Your task to perform on an android device: Open Google Maps and go to "Timeline" Image 0: 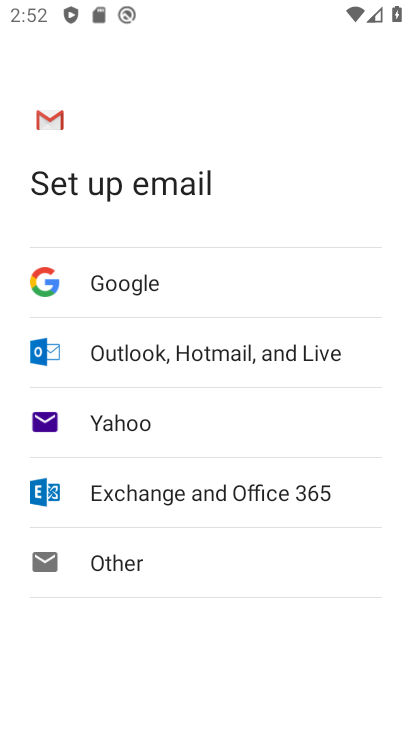
Step 0: press home button
Your task to perform on an android device: Open Google Maps and go to "Timeline" Image 1: 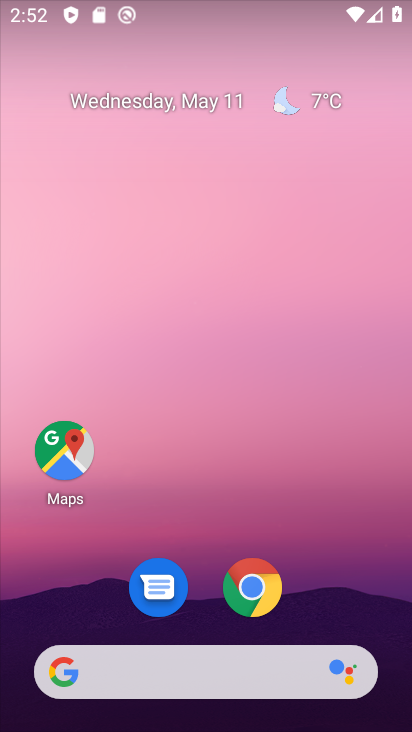
Step 1: click (75, 456)
Your task to perform on an android device: Open Google Maps and go to "Timeline" Image 2: 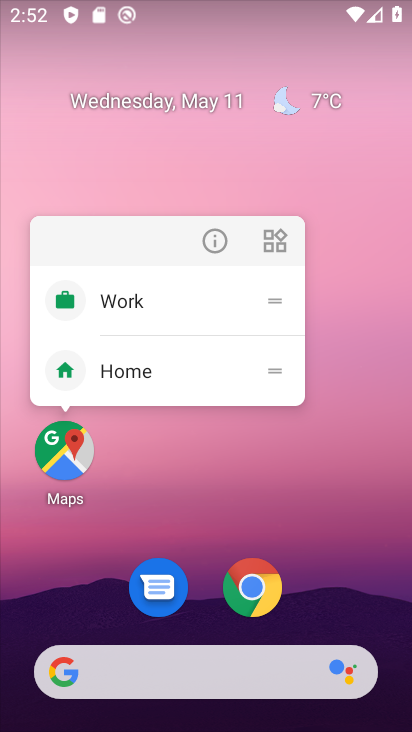
Step 2: click (50, 464)
Your task to perform on an android device: Open Google Maps and go to "Timeline" Image 3: 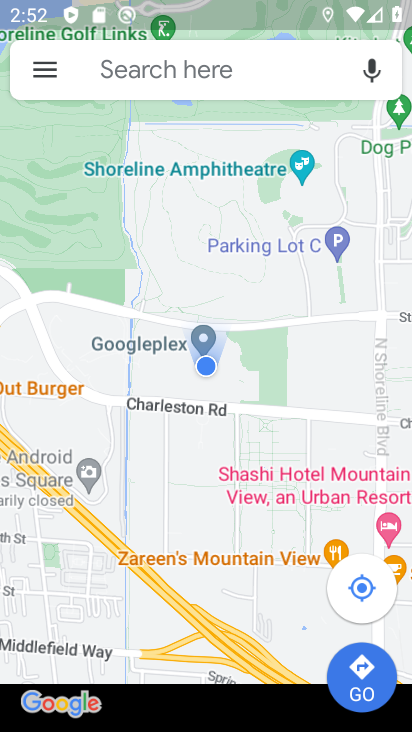
Step 3: click (65, 452)
Your task to perform on an android device: Open Google Maps and go to "Timeline" Image 4: 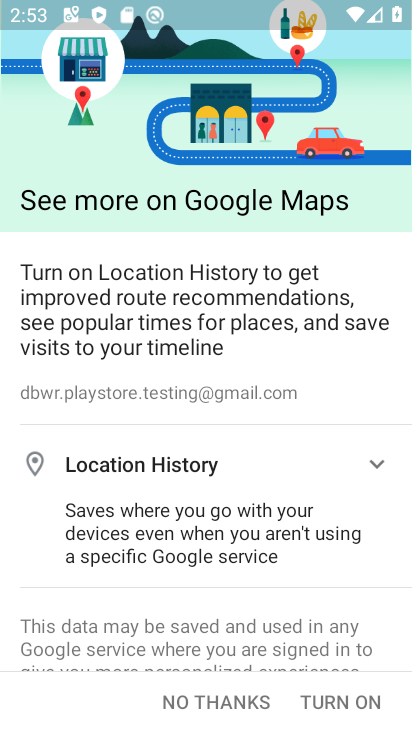
Step 4: click (251, 706)
Your task to perform on an android device: Open Google Maps and go to "Timeline" Image 5: 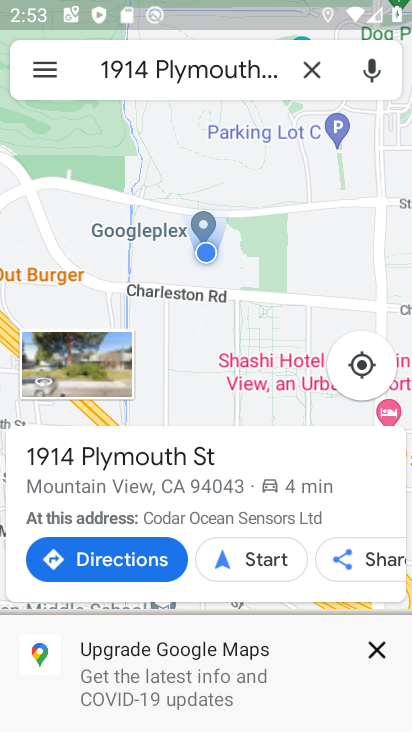
Step 5: click (45, 77)
Your task to perform on an android device: Open Google Maps and go to "Timeline" Image 6: 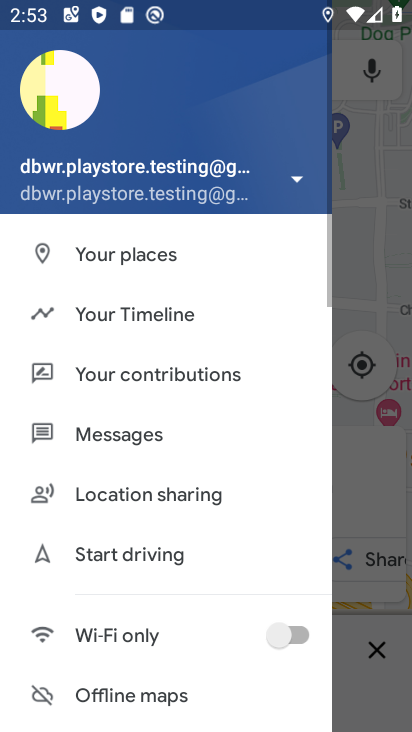
Step 6: click (153, 309)
Your task to perform on an android device: Open Google Maps and go to "Timeline" Image 7: 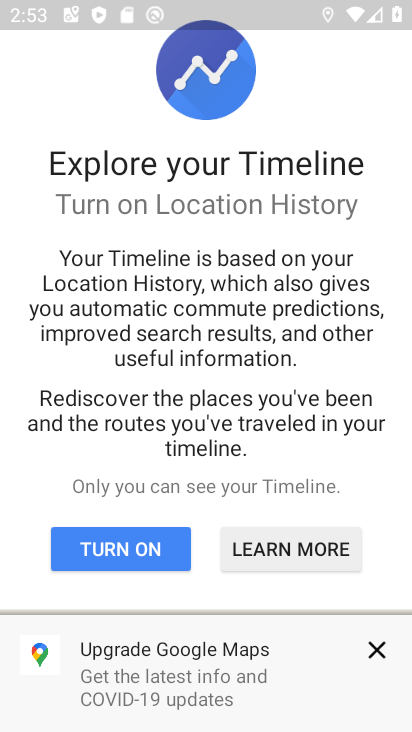
Step 7: click (354, 648)
Your task to perform on an android device: Open Google Maps and go to "Timeline" Image 8: 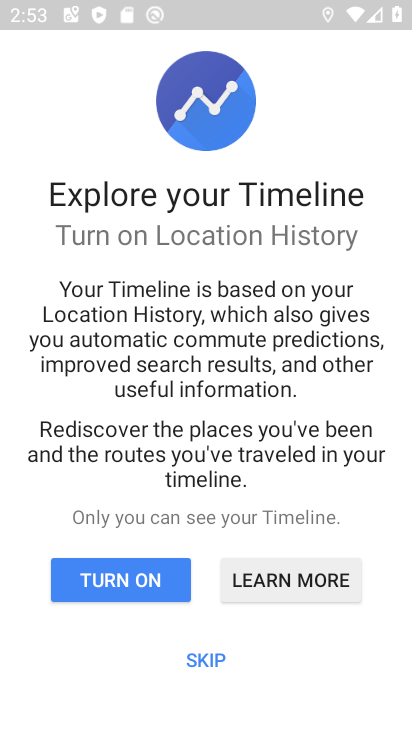
Step 8: click (208, 662)
Your task to perform on an android device: Open Google Maps and go to "Timeline" Image 9: 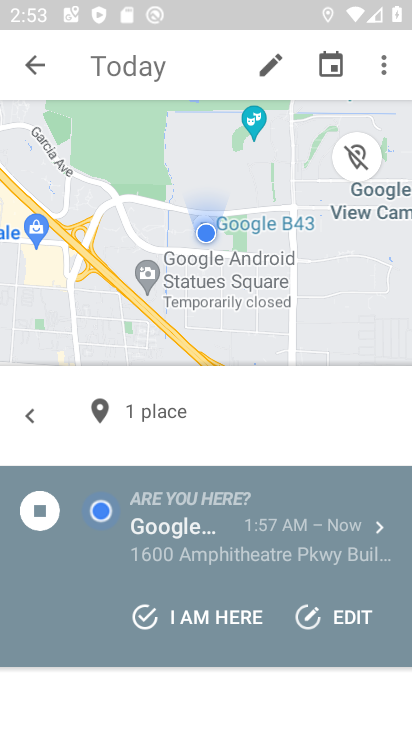
Step 9: task complete